Your task to perform on an android device: Open the web browser Image 0: 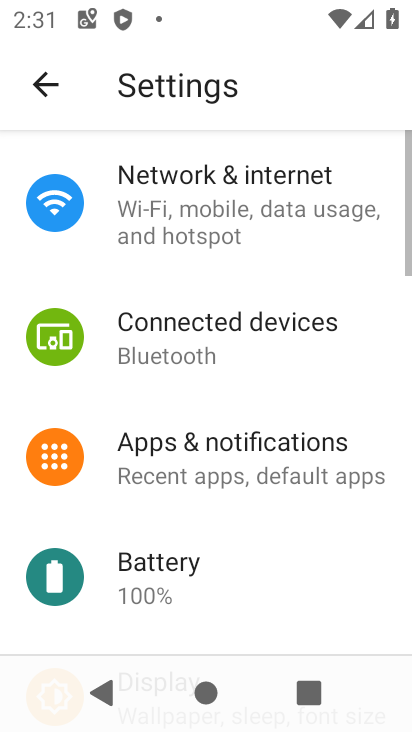
Step 0: press home button
Your task to perform on an android device: Open the web browser Image 1: 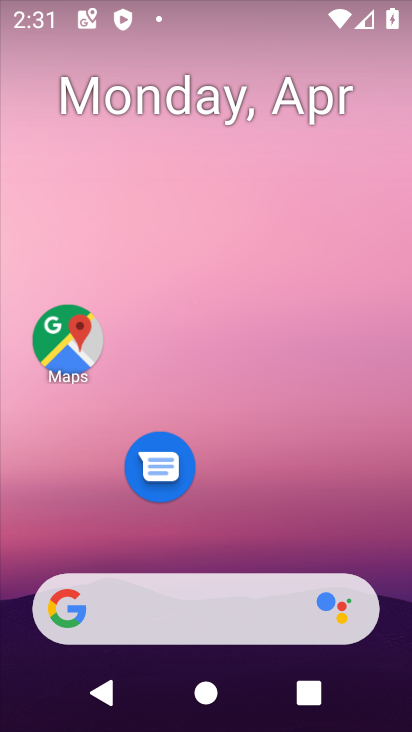
Step 1: drag from (267, 281) to (346, 32)
Your task to perform on an android device: Open the web browser Image 2: 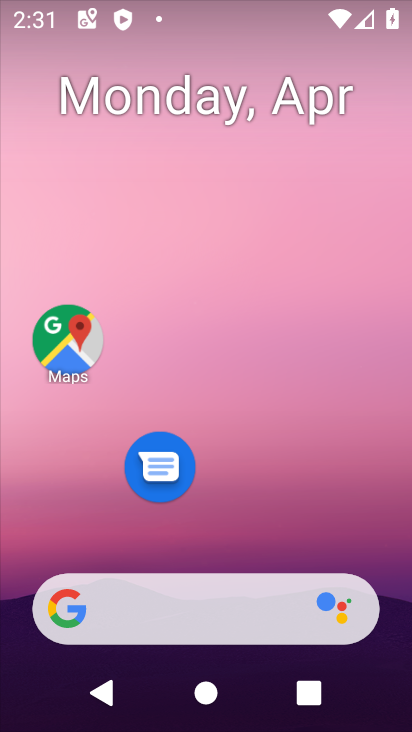
Step 2: drag from (278, 280) to (393, 7)
Your task to perform on an android device: Open the web browser Image 3: 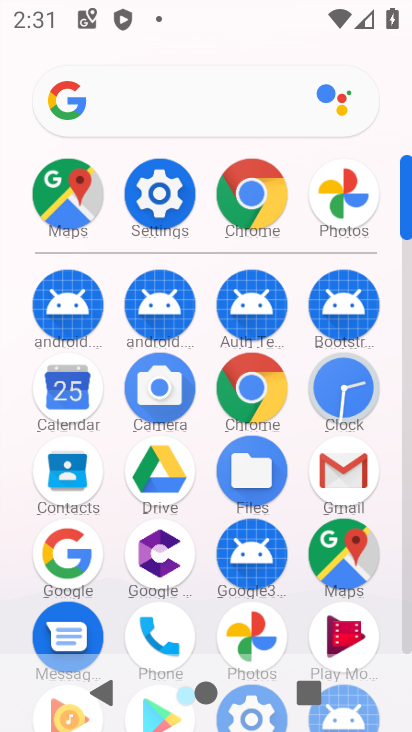
Step 3: click (247, 199)
Your task to perform on an android device: Open the web browser Image 4: 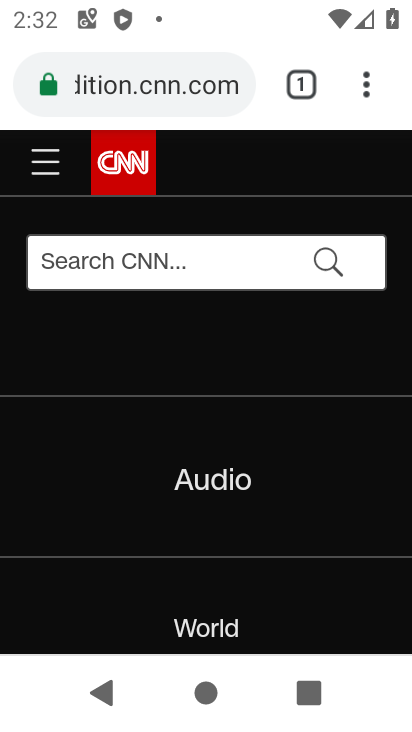
Step 4: task complete